Your task to perform on an android device: Do I have any events tomorrow? Image 0: 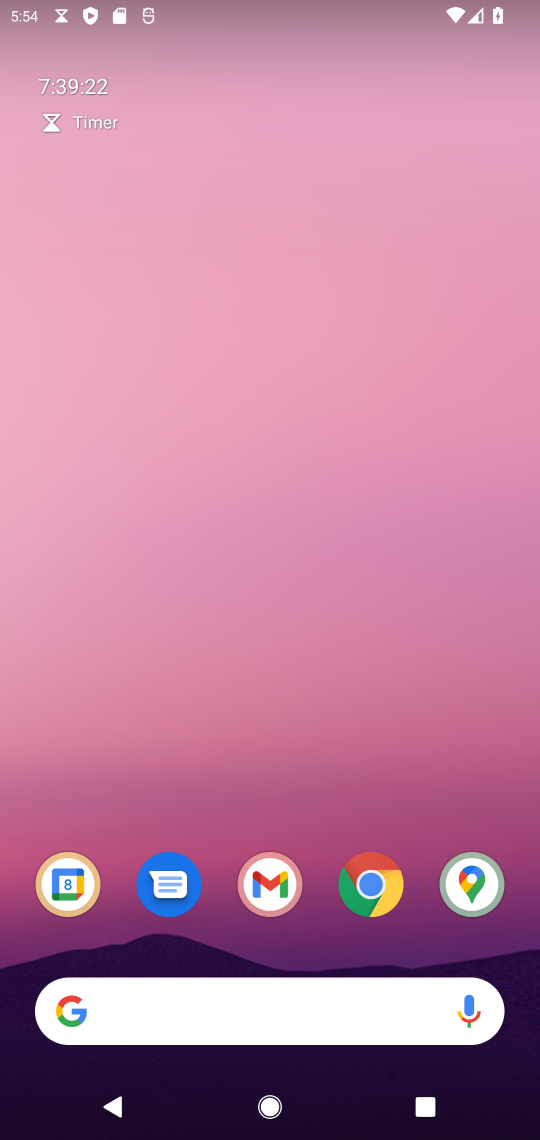
Step 0: click (273, 891)
Your task to perform on an android device: Do I have any events tomorrow? Image 1: 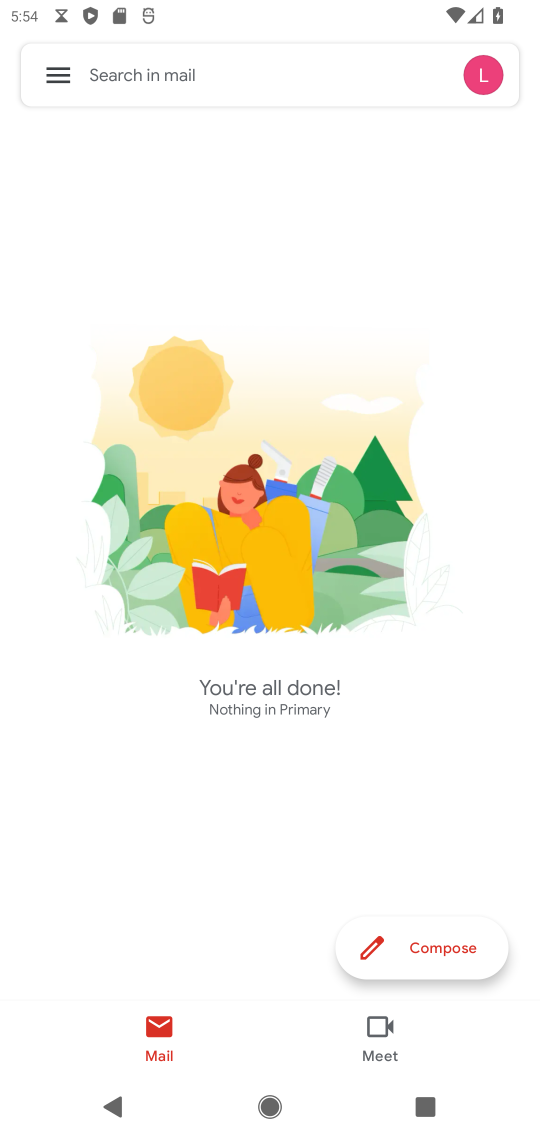
Step 1: press home button
Your task to perform on an android device: Do I have any events tomorrow? Image 2: 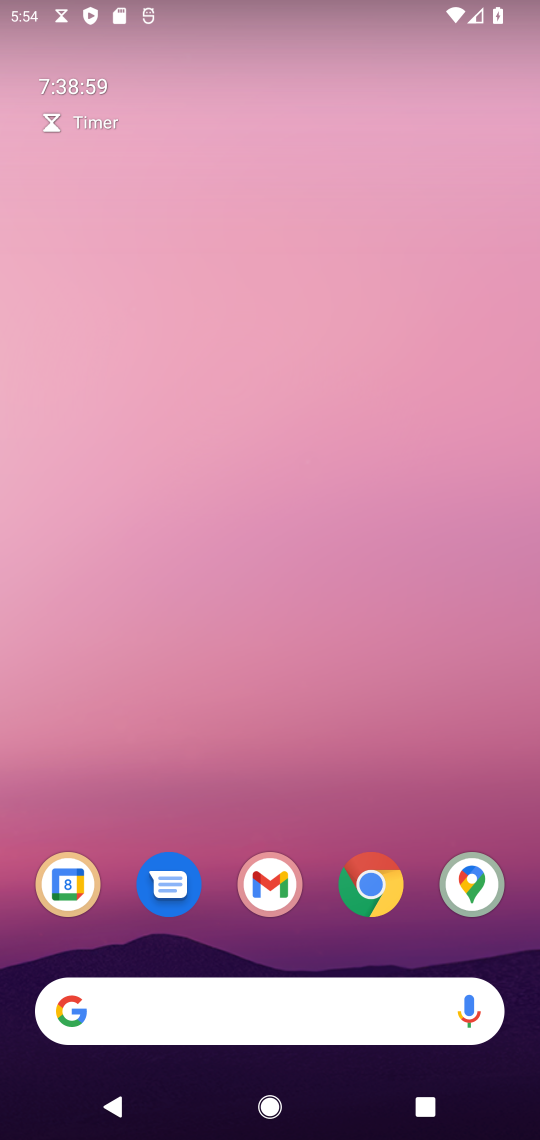
Step 2: click (79, 881)
Your task to perform on an android device: Do I have any events tomorrow? Image 3: 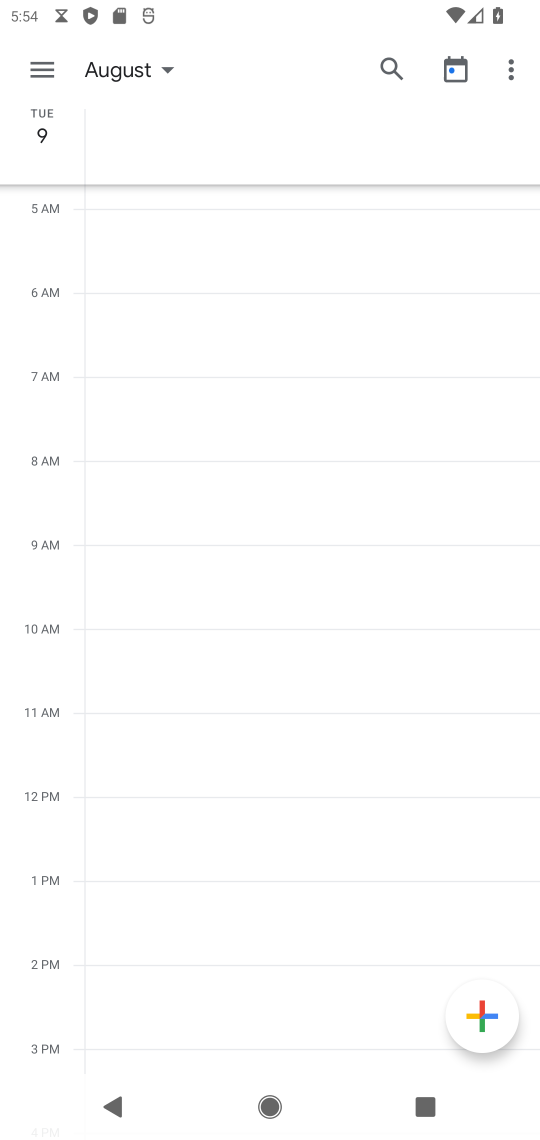
Step 3: click (38, 68)
Your task to perform on an android device: Do I have any events tomorrow? Image 4: 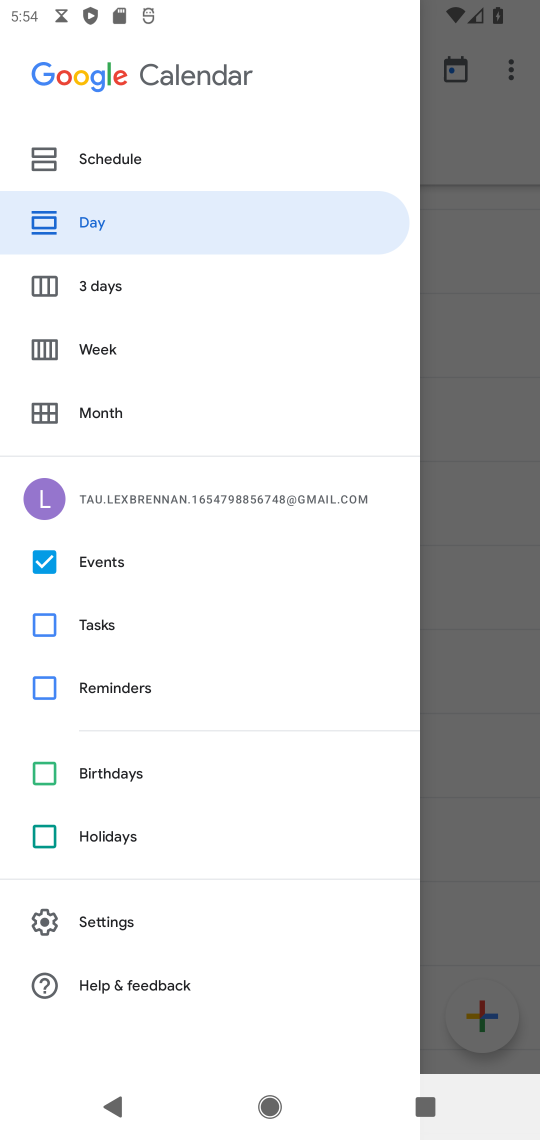
Step 4: click (149, 223)
Your task to perform on an android device: Do I have any events tomorrow? Image 5: 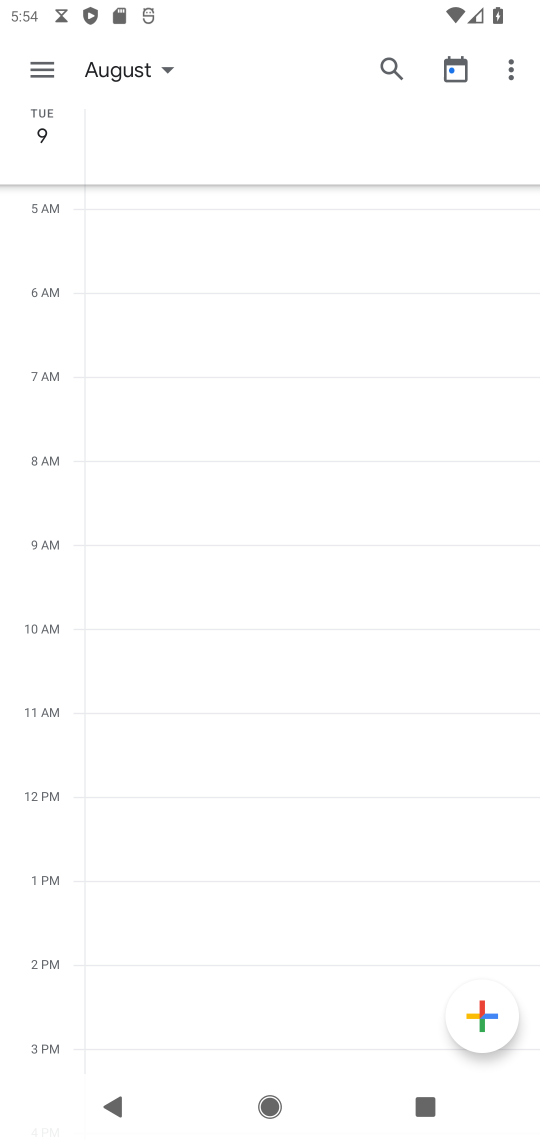
Step 5: task complete